Your task to perform on an android device: Open ESPN.com Image 0: 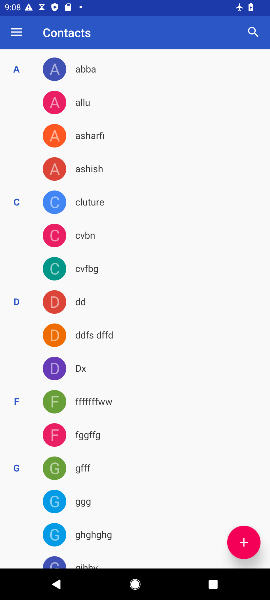
Step 0: press home button
Your task to perform on an android device: Open ESPN.com Image 1: 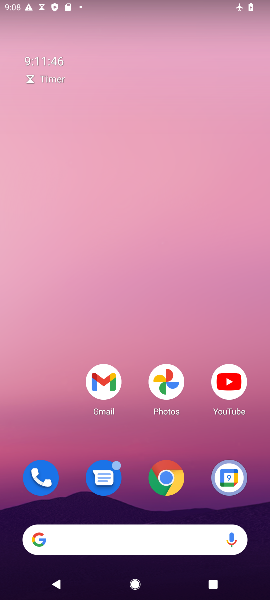
Step 1: click (168, 478)
Your task to perform on an android device: Open ESPN.com Image 2: 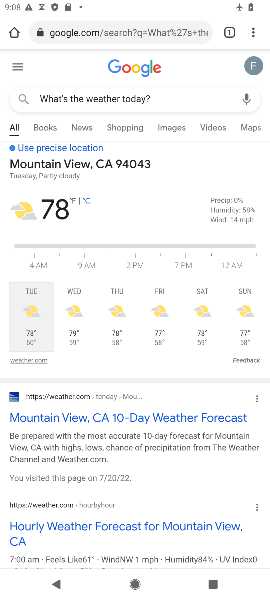
Step 2: click (103, 24)
Your task to perform on an android device: Open ESPN.com Image 3: 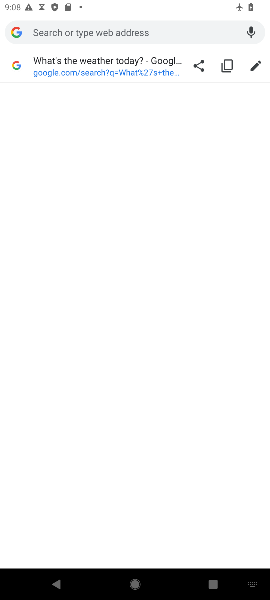
Step 3: click (107, 33)
Your task to perform on an android device: Open ESPN.com Image 4: 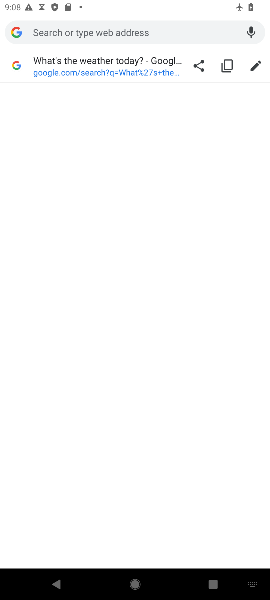
Step 4: type "ESPN.com"
Your task to perform on an android device: Open ESPN.com Image 5: 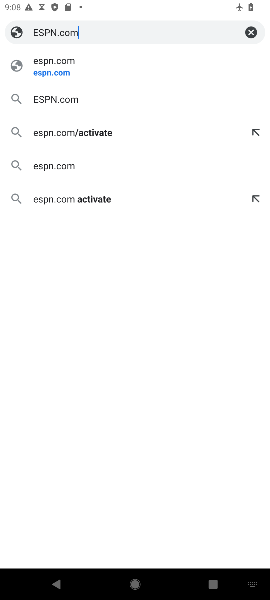
Step 5: click (50, 66)
Your task to perform on an android device: Open ESPN.com Image 6: 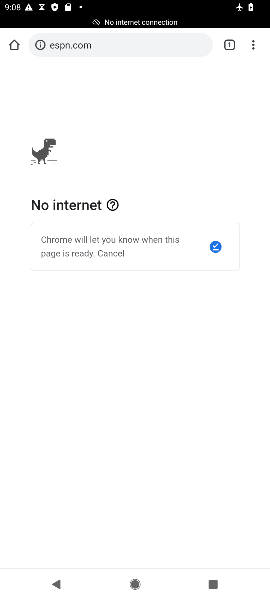
Step 6: task complete